Your task to perform on an android device: turn off priority inbox in the gmail app Image 0: 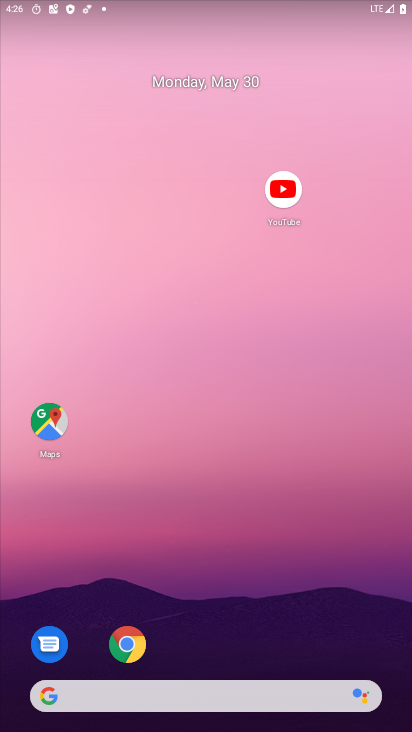
Step 0: drag from (231, 625) to (213, 55)
Your task to perform on an android device: turn off priority inbox in the gmail app Image 1: 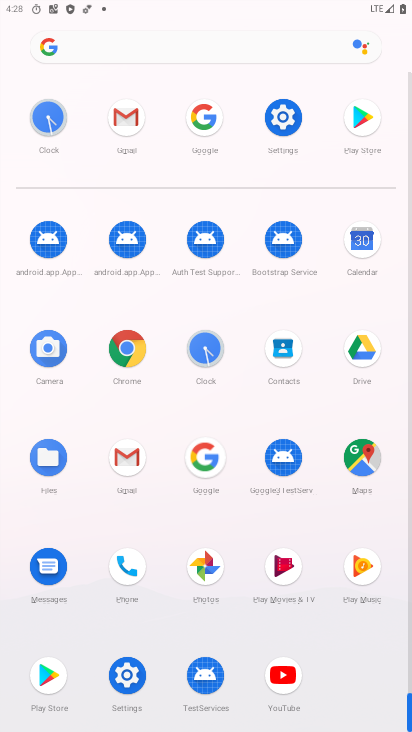
Step 1: click (126, 135)
Your task to perform on an android device: turn off priority inbox in the gmail app Image 2: 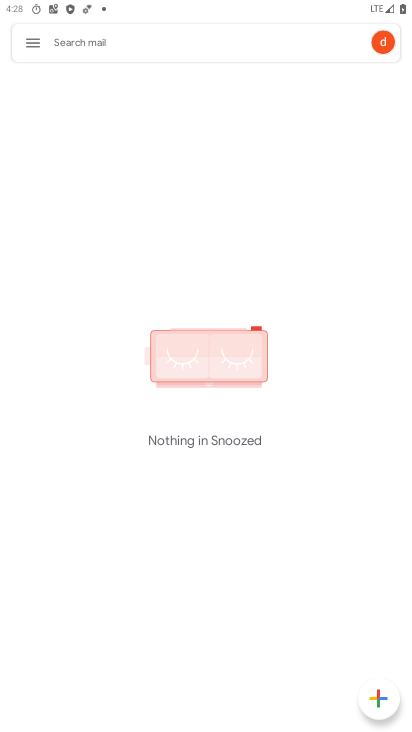
Step 2: click (25, 54)
Your task to perform on an android device: turn off priority inbox in the gmail app Image 3: 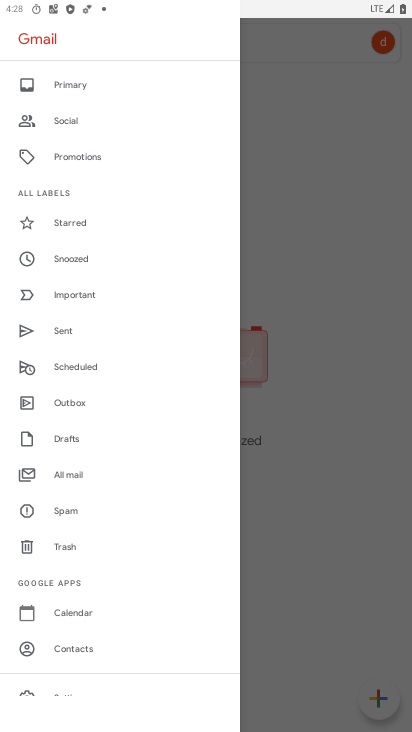
Step 3: click (59, 680)
Your task to perform on an android device: turn off priority inbox in the gmail app Image 4: 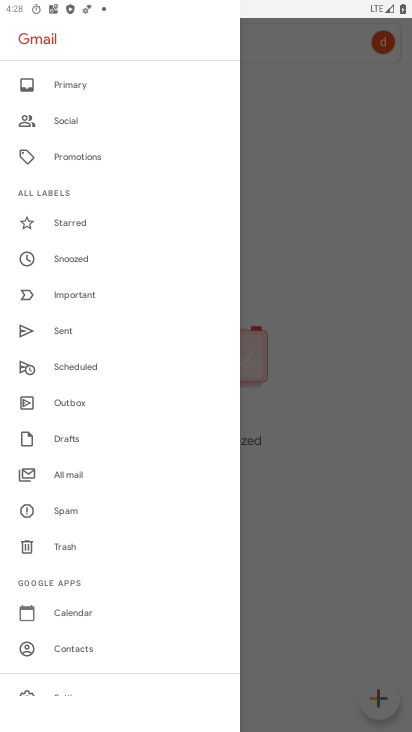
Step 4: click (72, 688)
Your task to perform on an android device: turn off priority inbox in the gmail app Image 5: 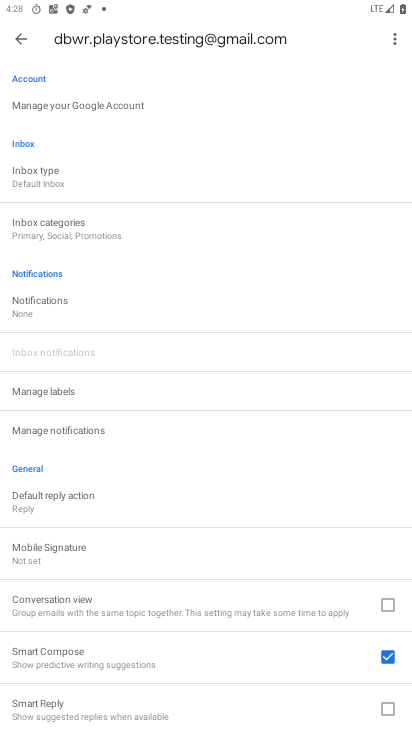
Step 5: click (77, 183)
Your task to perform on an android device: turn off priority inbox in the gmail app Image 6: 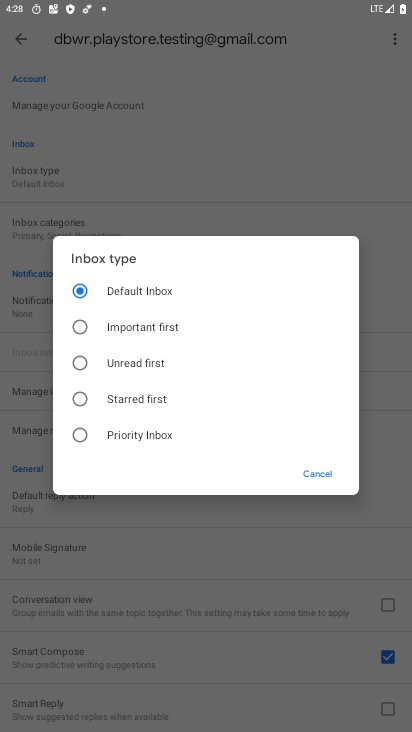
Step 6: task complete